Your task to perform on an android device: toggle sleep mode Image 0: 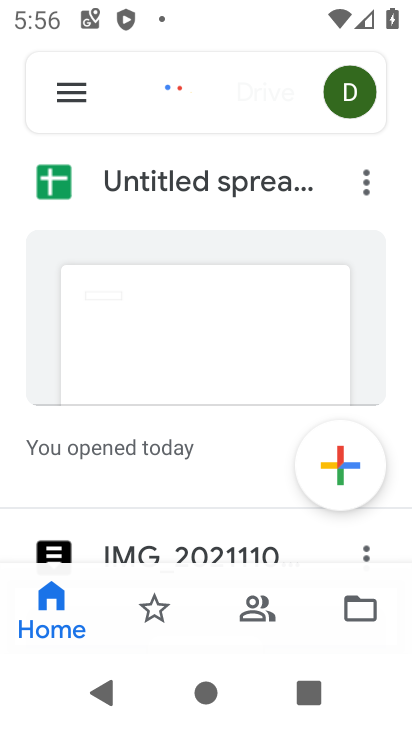
Step 0: press back button
Your task to perform on an android device: toggle sleep mode Image 1: 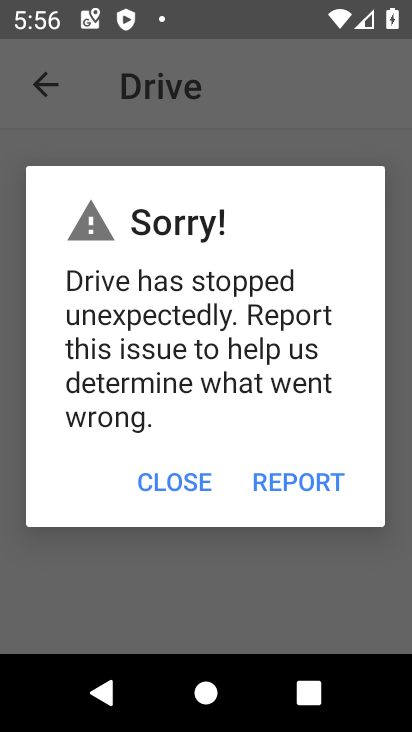
Step 1: press home button
Your task to perform on an android device: toggle sleep mode Image 2: 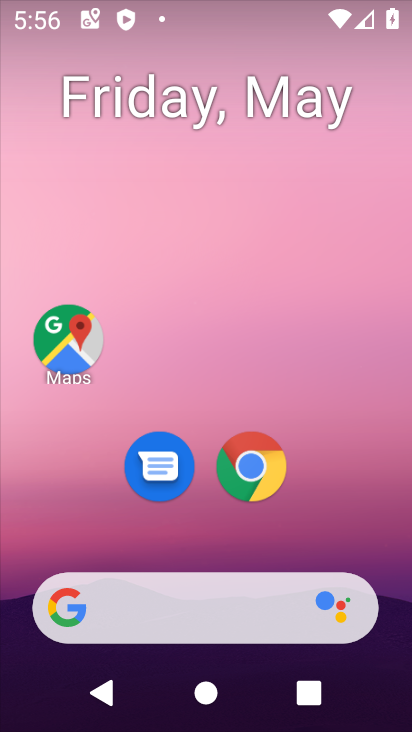
Step 2: drag from (370, 522) to (242, 26)
Your task to perform on an android device: toggle sleep mode Image 3: 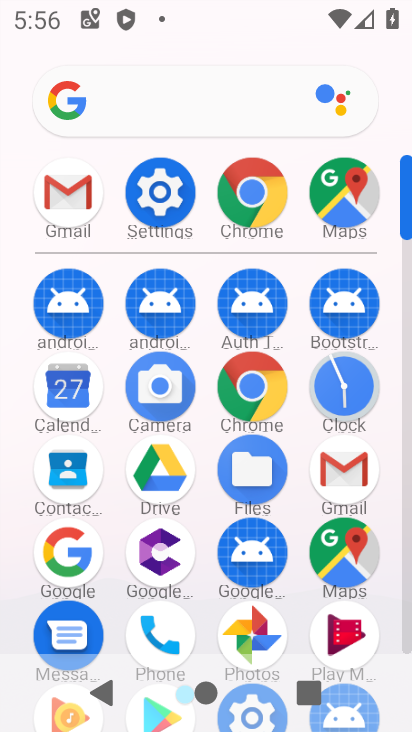
Step 3: click (159, 191)
Your task to perform on an android device: toggle sleep mode Image 4: 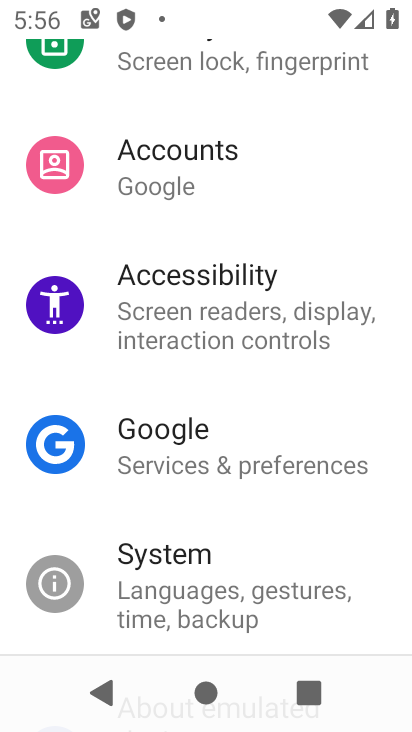
Step 4: drag from (294, 230) to (329, 588)
Your task to perform on an android device: toggle sleep mode Image 5: 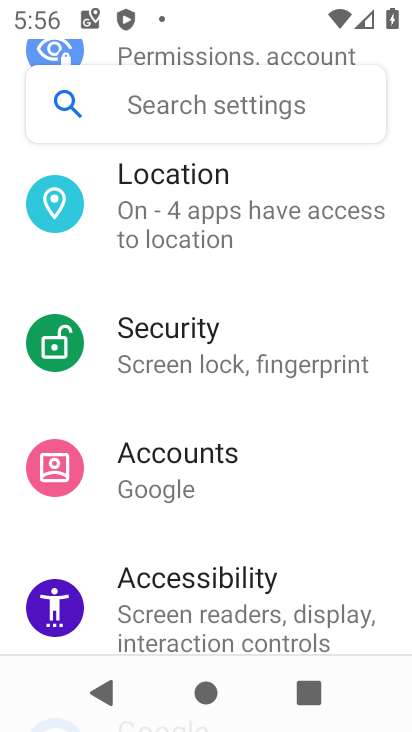
Step 5: drag from (304, 211) to (302, 629)
Your task to perform on an android device: toggle sleep mode Image 6: 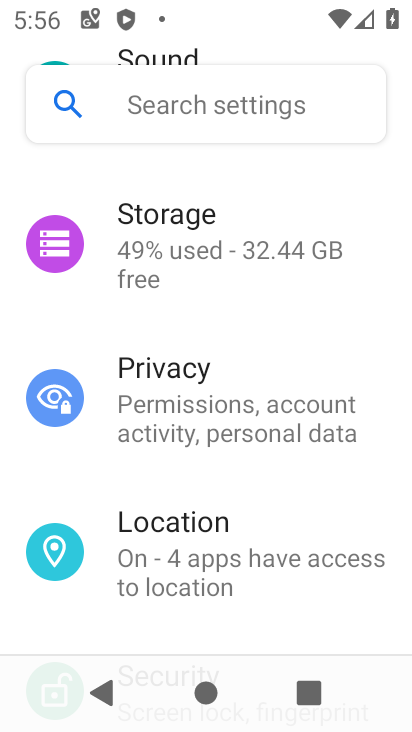
Step 6: drag from (276, 274) to (259, 623)
Your task to perform on an android device: toggle sleep mode Image 7: 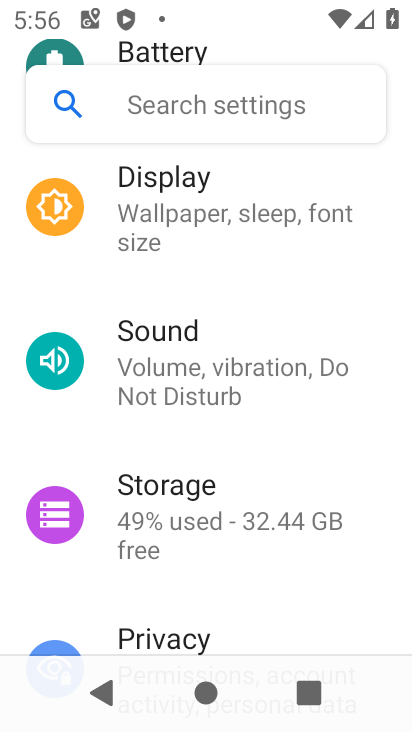
Step 7: drag from (242, 229) to (258, 637)
Your task to perform on an android device: toggle sleep mode Image 8: 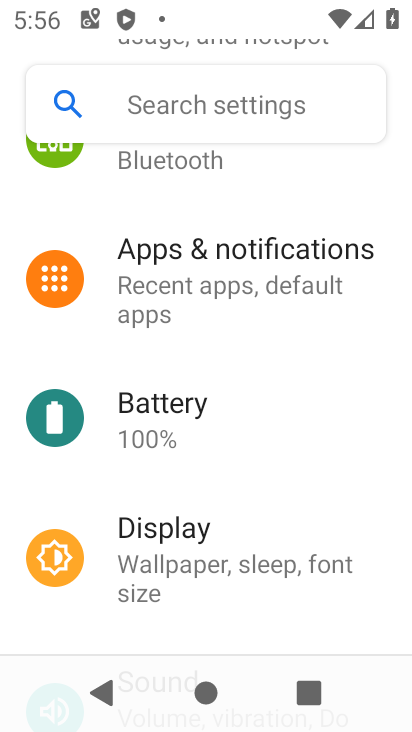
Step 8: drag from (286, 446) to (306, 622)
Your task to perform on an android device: toggle sleep mode Image 9: 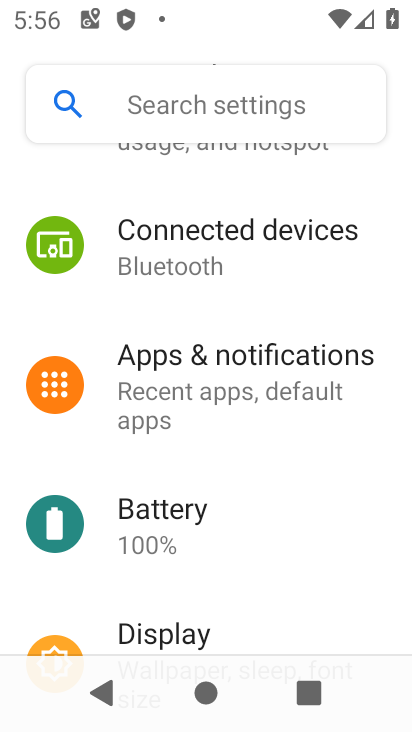
Step 9: drag from (300, 221) to (330, 558)
Your task to perform on an android device: toggle sleep mode Image 10: 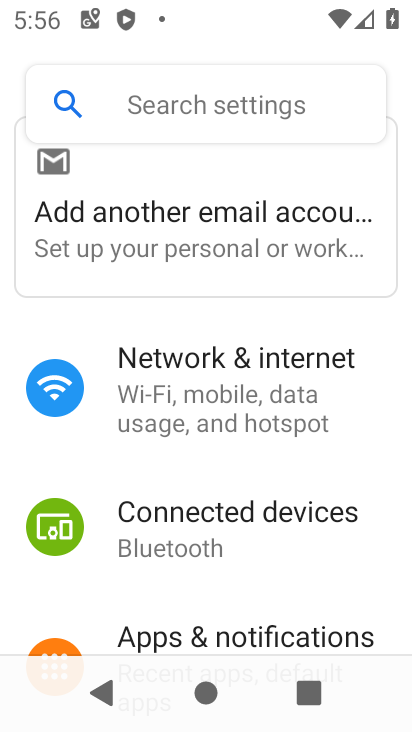
Step 10: drag from (326, 575) to (298, 218)
Your task to perform on an android device: toggle sleep mode Image 11: 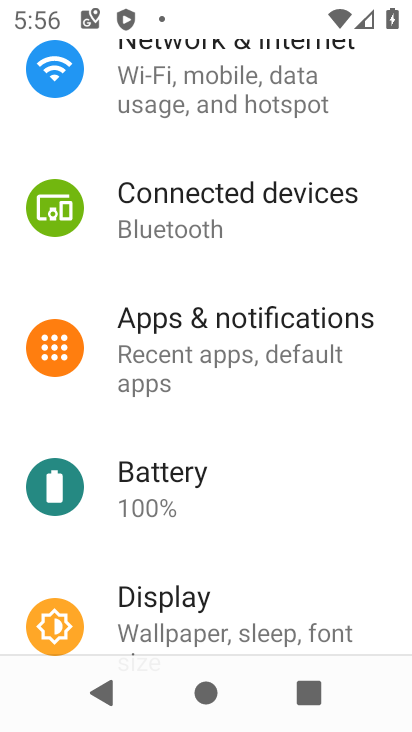
Step 11: click (273, 608)
Your task to perform on an android device: toggle sleep mode Image 12: 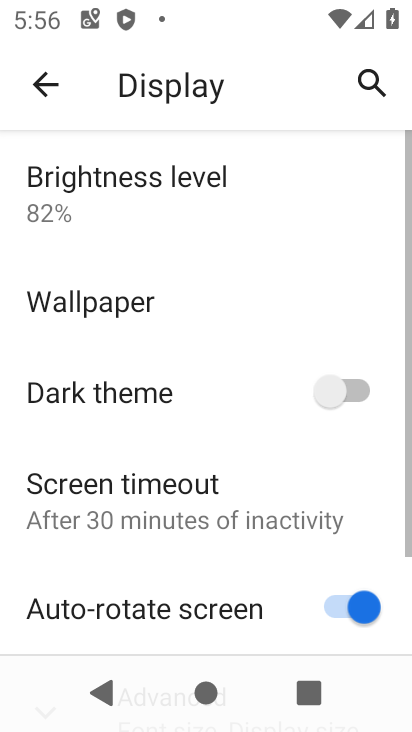
Step 12: drag from (230, 581) to (226, 192)
Your task to perform on an android device: toggle sleep mode Image 13: 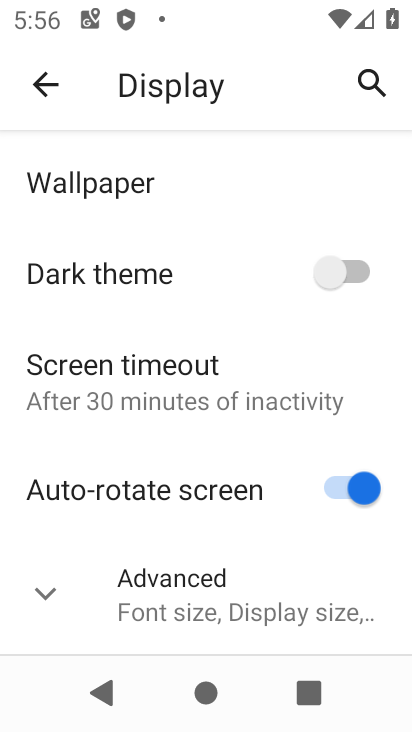
Step 13: click (127, 562)
Your task to perform on an android device: toggle sleep mode Image 14: 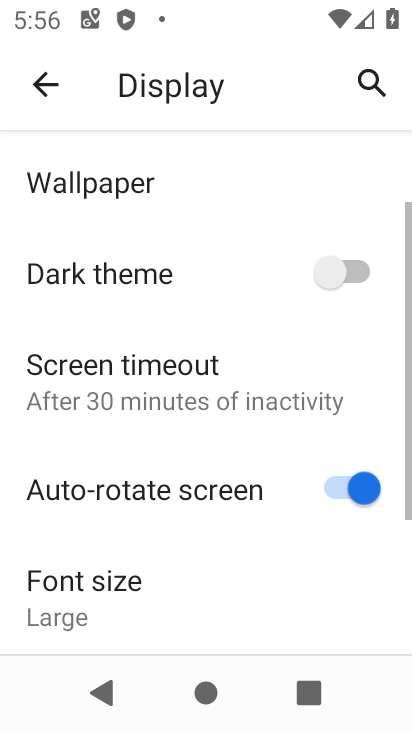
Step 14: task complete